Your task to perform on an android device: Open Google Chrome and open the bookmarks view Image 0: 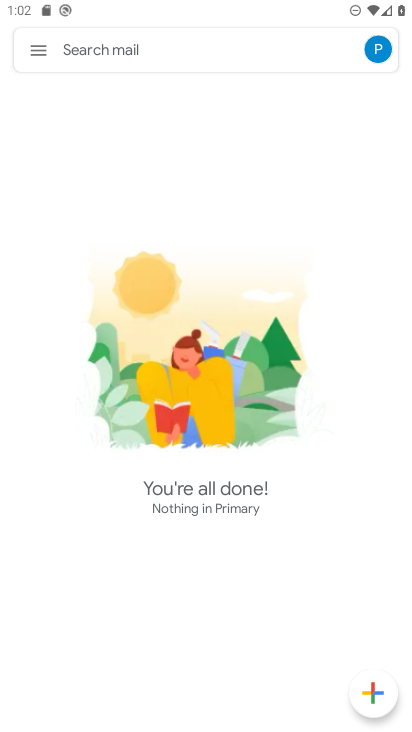
Step 0: press home button
Your task to perform on an android device: Open Google Chrome and open the bookmarks view Image 1: 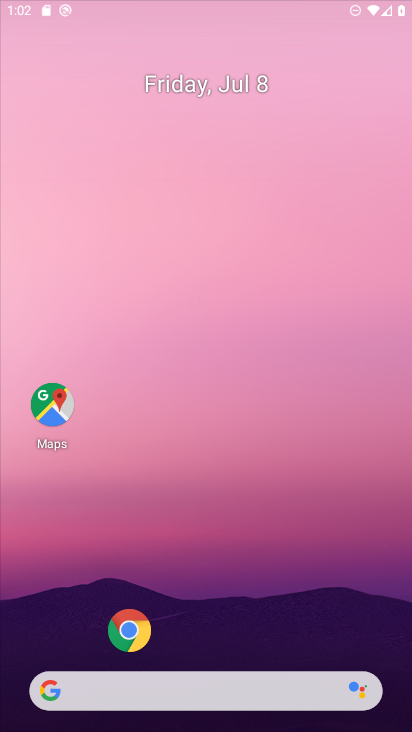
Step 1: drag from (153, 665) to (108, 85)
Your task to perform on an android device: Open Google Chrome and open the bookmarks view Image 2: 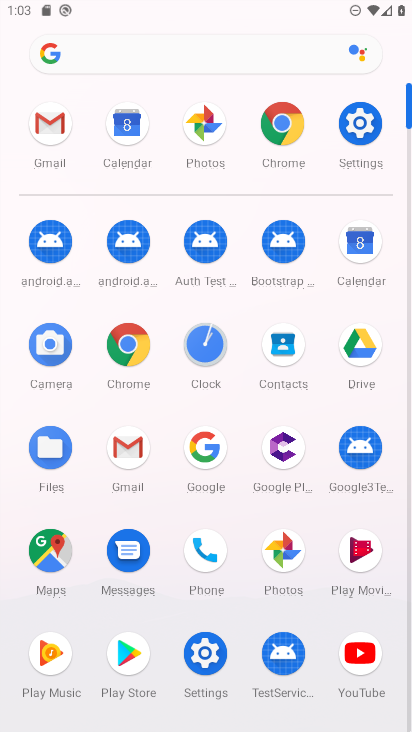
Step 2: click (133, 337)
Your task to perform on an android device: Open Google Chrome and open the bookmarks view Image 3: 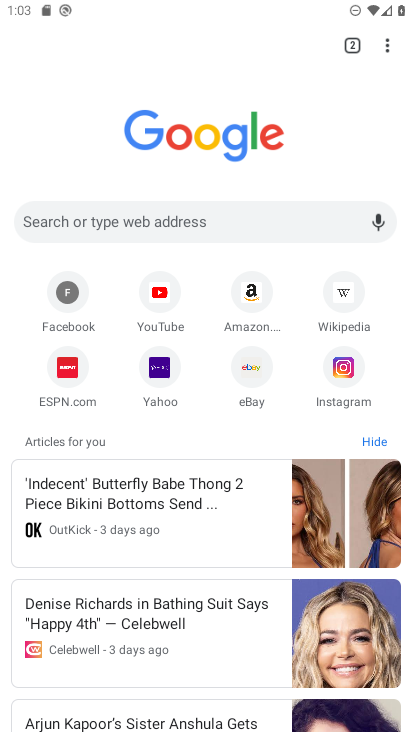
Step 3: task complete